Your task to perform on an android device: Show me recent news Image 0: 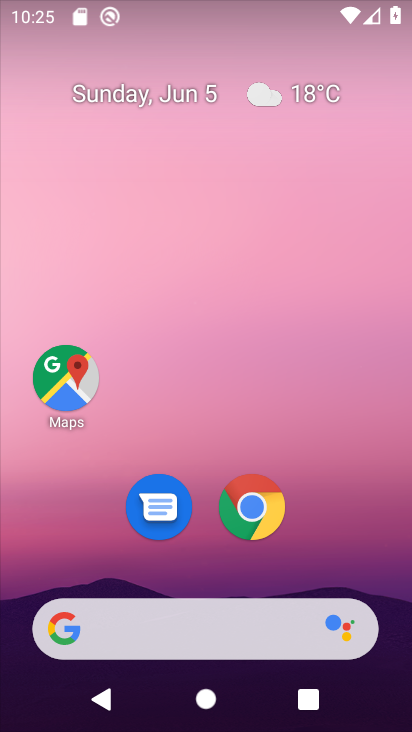
Step 0: drag from (196, 544) to (188, 0)
Your task to perform on an android device: Show me recent news Image 1: 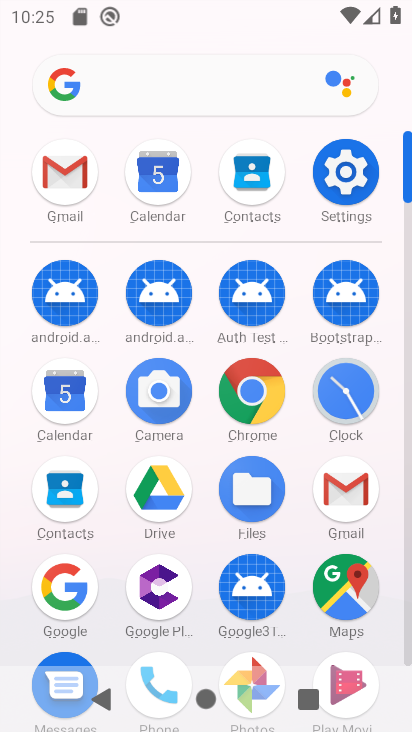
Step 1: click (197, 77)
Your task to perform on an android device: Show me recent news Image 2: 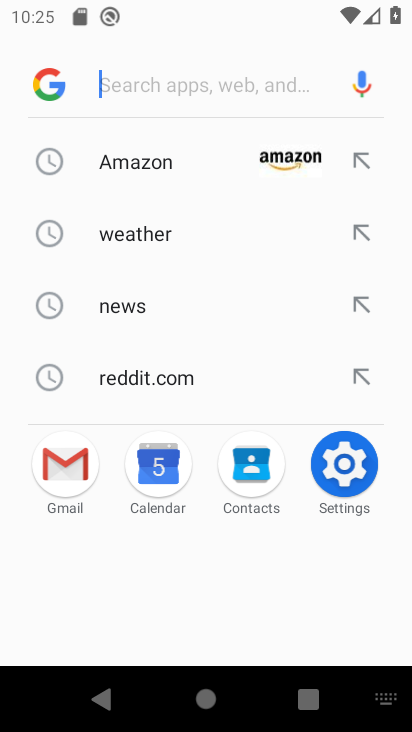
Step 2: click (154, 95)
Your task to perform on an android device: Show me recent news Image 3: 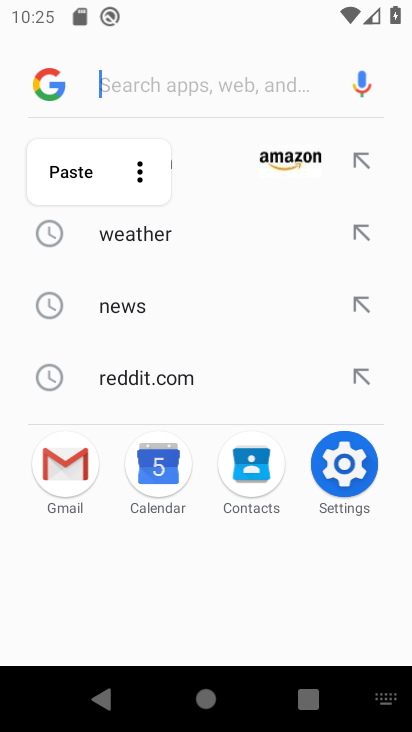
Step 3: type "recent news"
Your task to perform on an android device: Show me recent news Image 4: 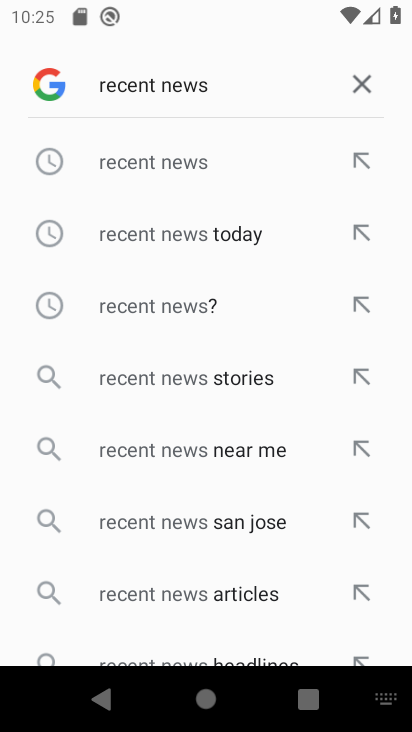
Step 4: click (192, 158)
Your task to perform on an android device: Show me recent news Image 5: 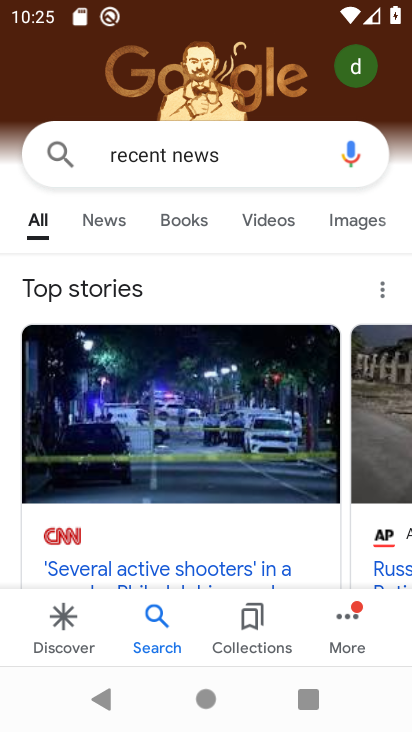
Step 5: task complete